Your task to perform on an android device: Open accessibility settings Image 0: 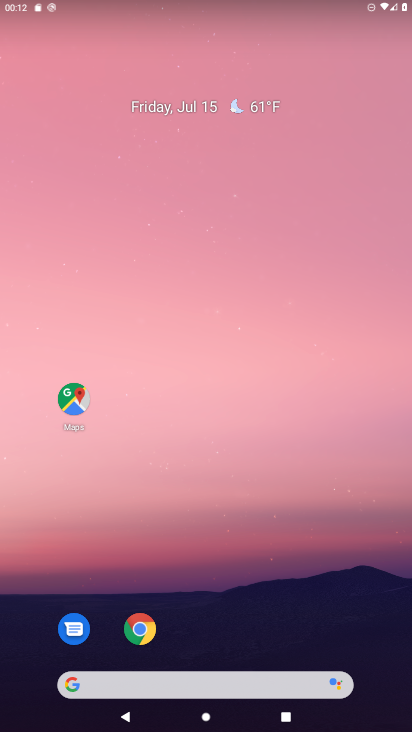
Step 0: drag from (211, 637) to (225, 152)
Your task to perform on an android device: Open accessibility settings Image 1: 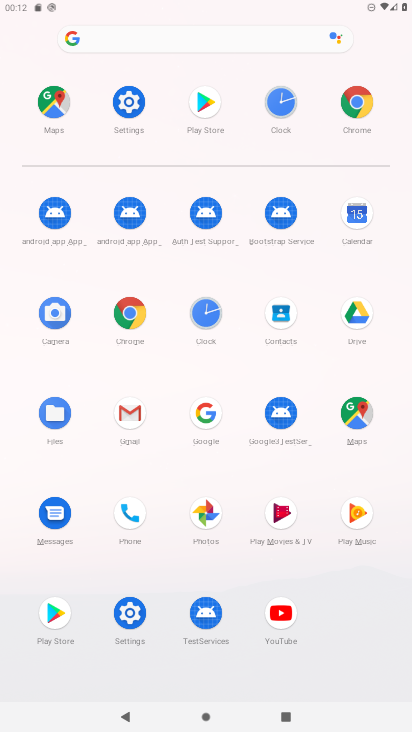
Step 1: click (141, 109)
Your task to perform on an android device: Open accessibility settings Image 2: 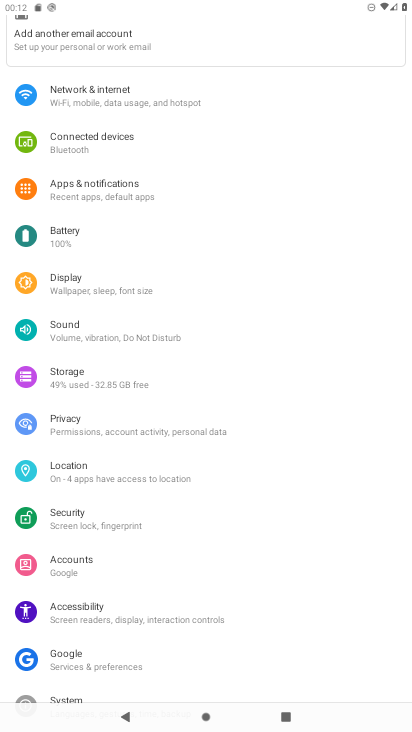
Step 2: click (92, 622)
Your task to perform on an android device: Open accessibility settings Image 3: 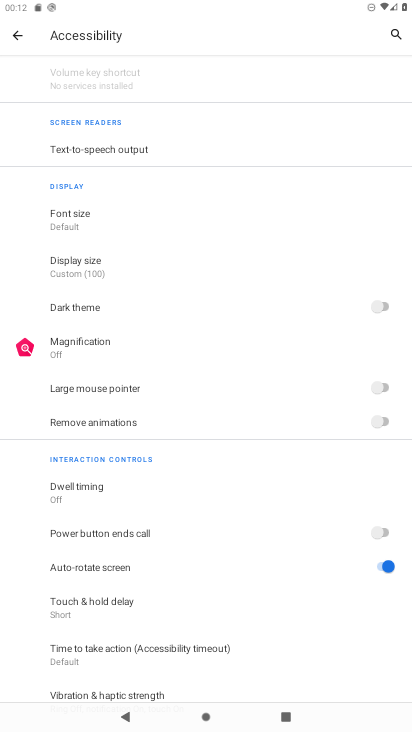
Step 3: task complete